Your task to perform on an android device: check battery use Image 0: 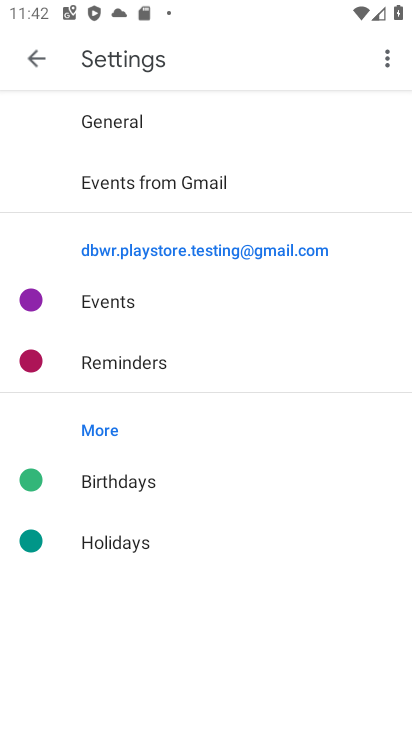
Step 0: press home button
Your task to perform on an android device: check battery use Image 1: 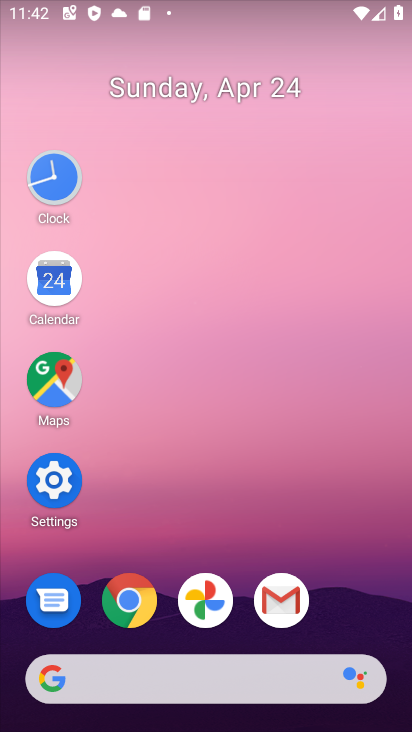
Step 1: click (47, 479)
Your task to perform on an android device: check battery use Image 2: 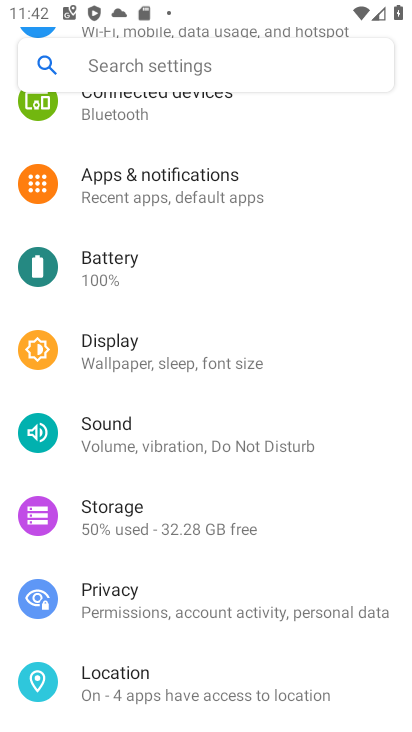
Step 2: click (111, 258)
Your task to perform on an android device: check battery use Image 3: 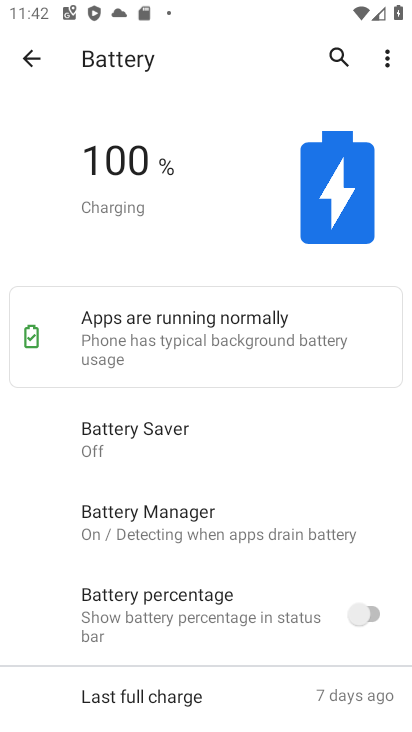
Step 3: task complete